Your task to perform on an android device: Clear the shopping cart on bestbuy.com. Image 0: 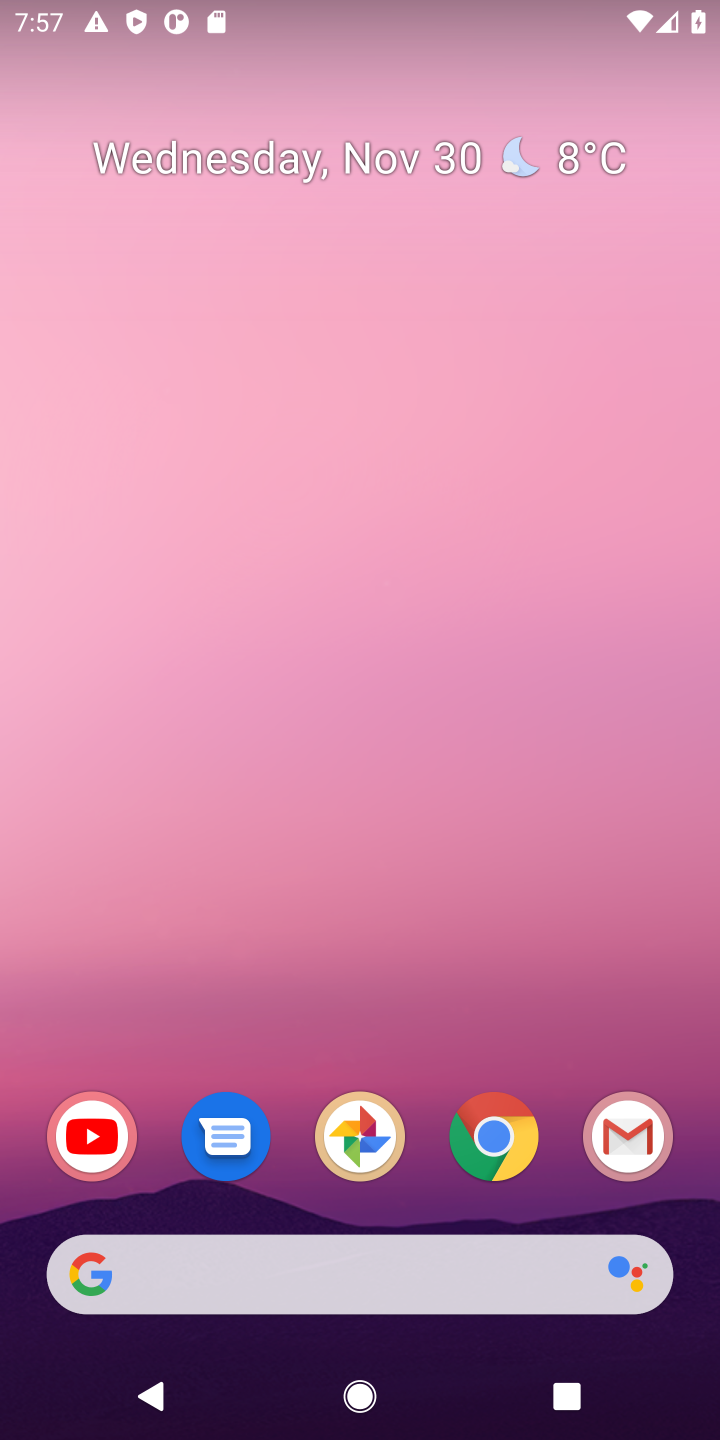
Step 0: click (505, 1115)
Your task to perform on an android device: Clear the shopping cart on bestbuy.com. Image 1: 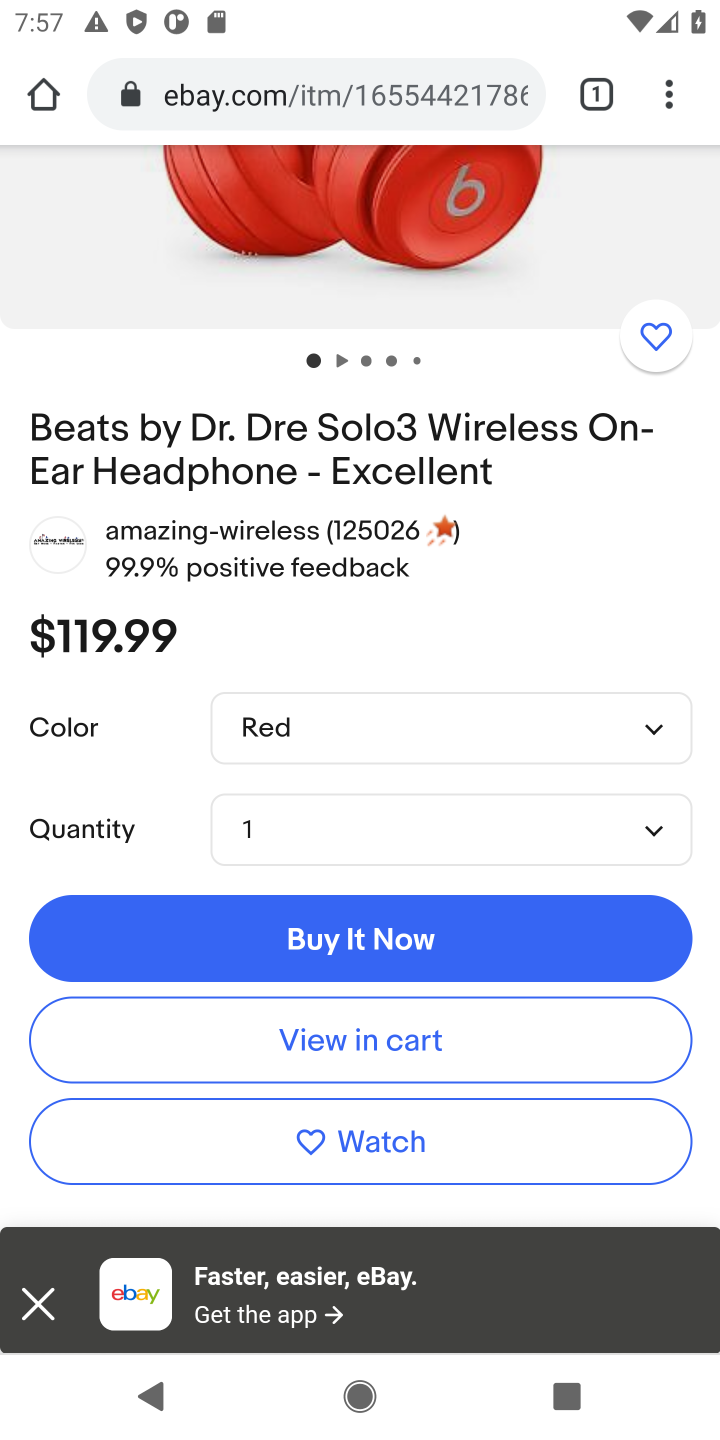
Step 1: click (317, 92)
Your task to perform on an android device: Clear the shopping cart on bestbuy.com. Image 2: 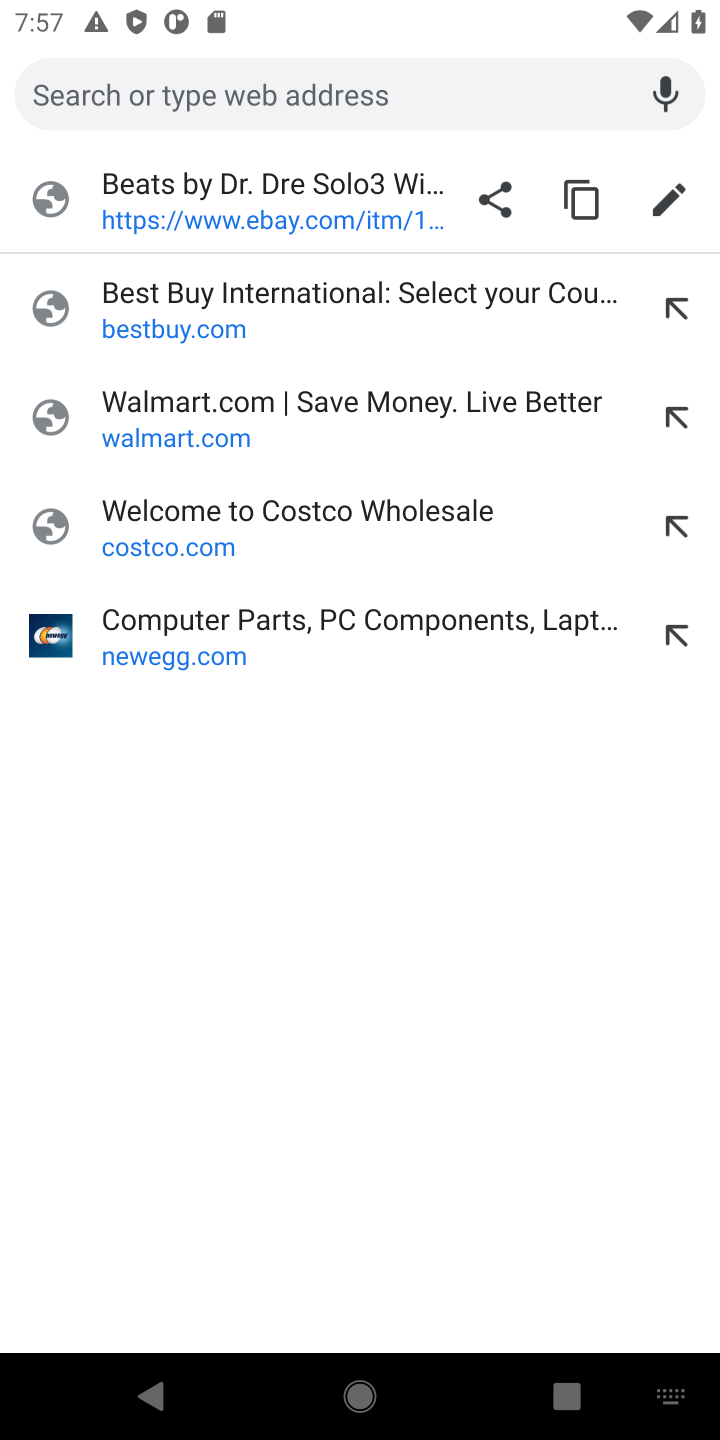
Step 2: click (150, 330)
Your task to perform on an android device: Clear the shopping cart on bestbuy.com. Image 3: 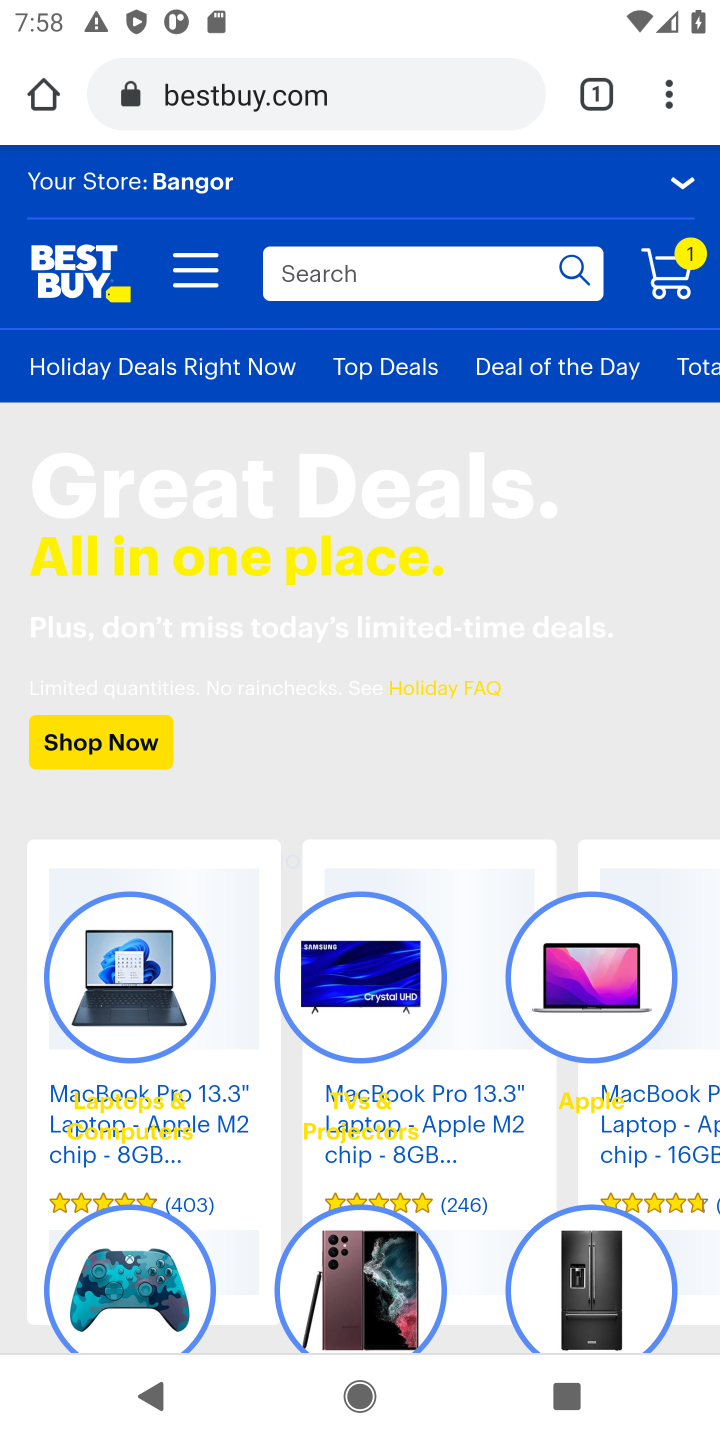
Step 3: click (663, 270)
Your task to perform on an android device: Clear the shopping cart on bestbuy.com. Image 4: 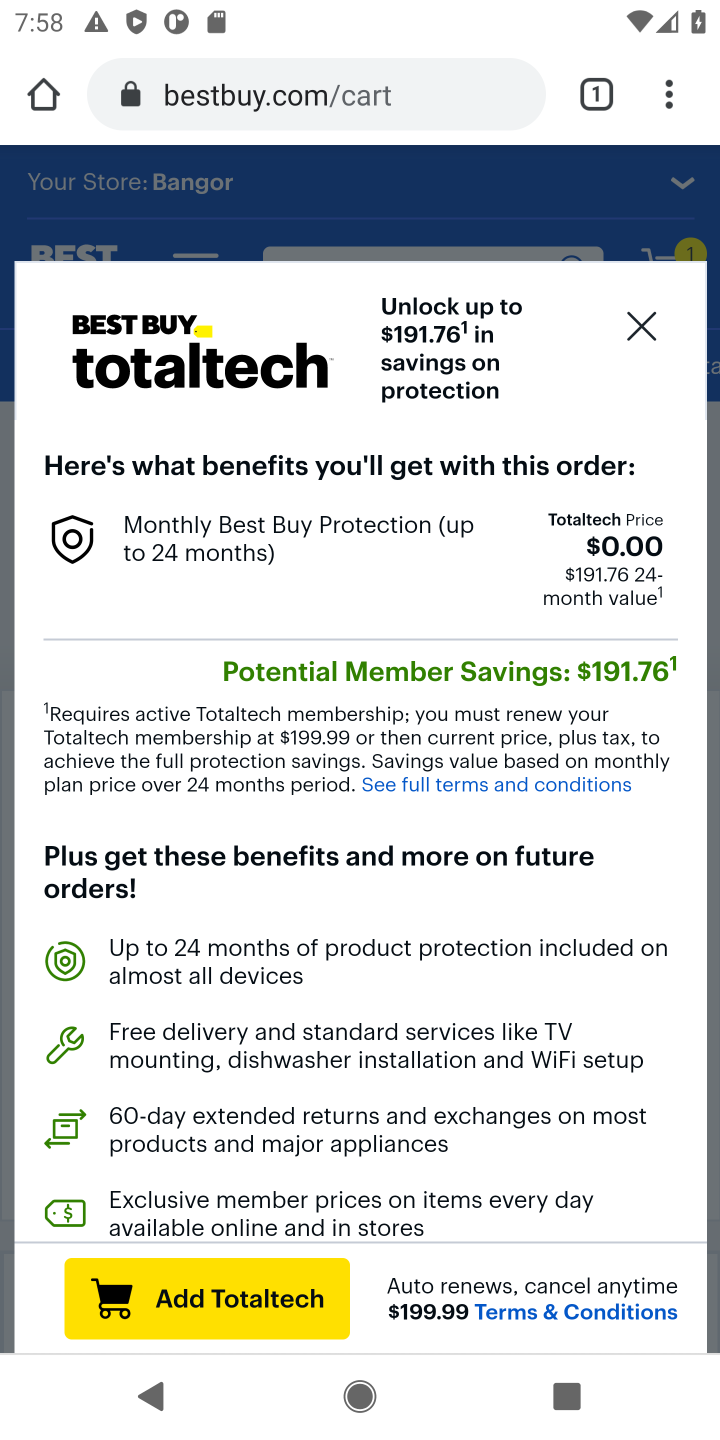
Step 4: click (643, 331)
Your task to perform on an android device: Clear the shopping cart on bestbuy.com. Image 5: 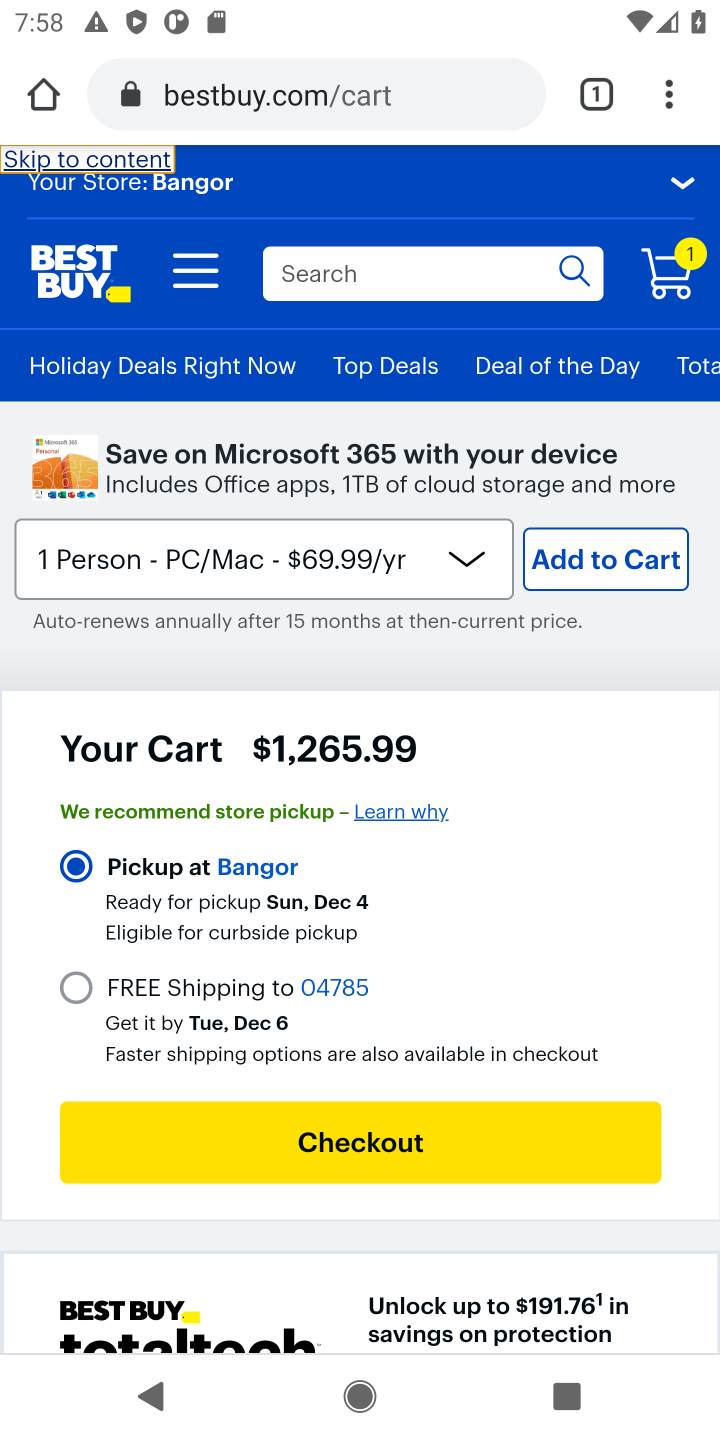
Step 5: drag from (555, 813) to (539, 301)
Your task to perform on an android device: Clear the shopping cart on bestbuy.com. Image 6: 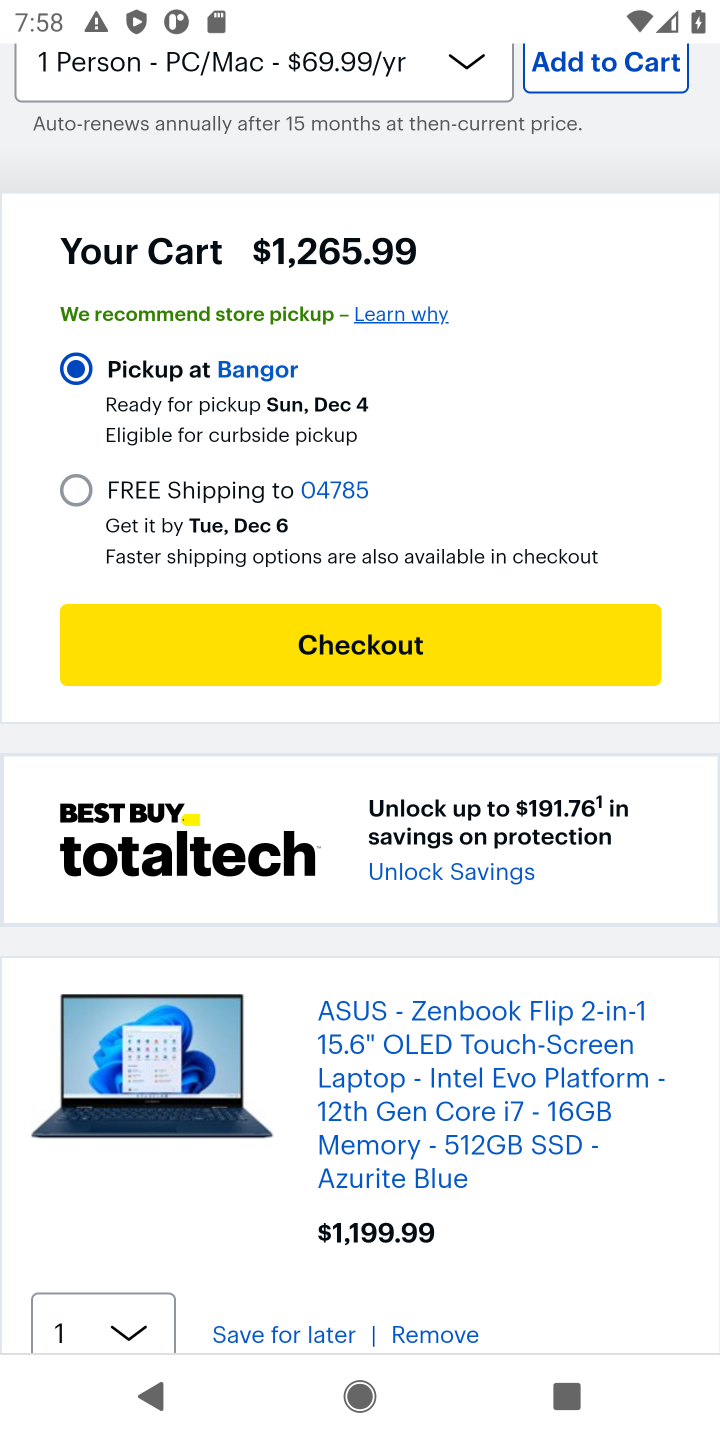
Step 6: drag from (499, 852) to (485, 330)
Your task to perform on an android device: Clear the shopping cart on bestbuy.com. Image 7: 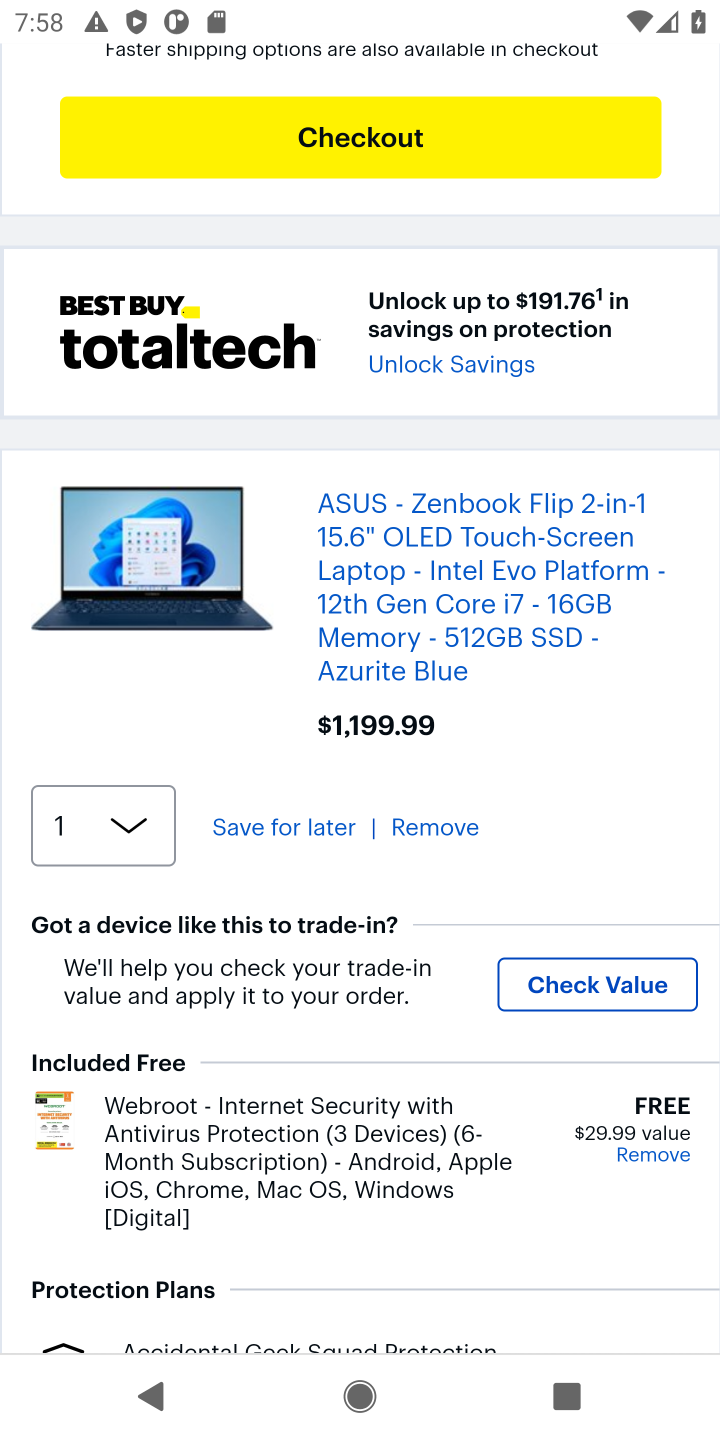
Step 7: click (428, 836)
Your task to perform on an android device: Clear the shopping cart on bestbuy.com. Image 8: 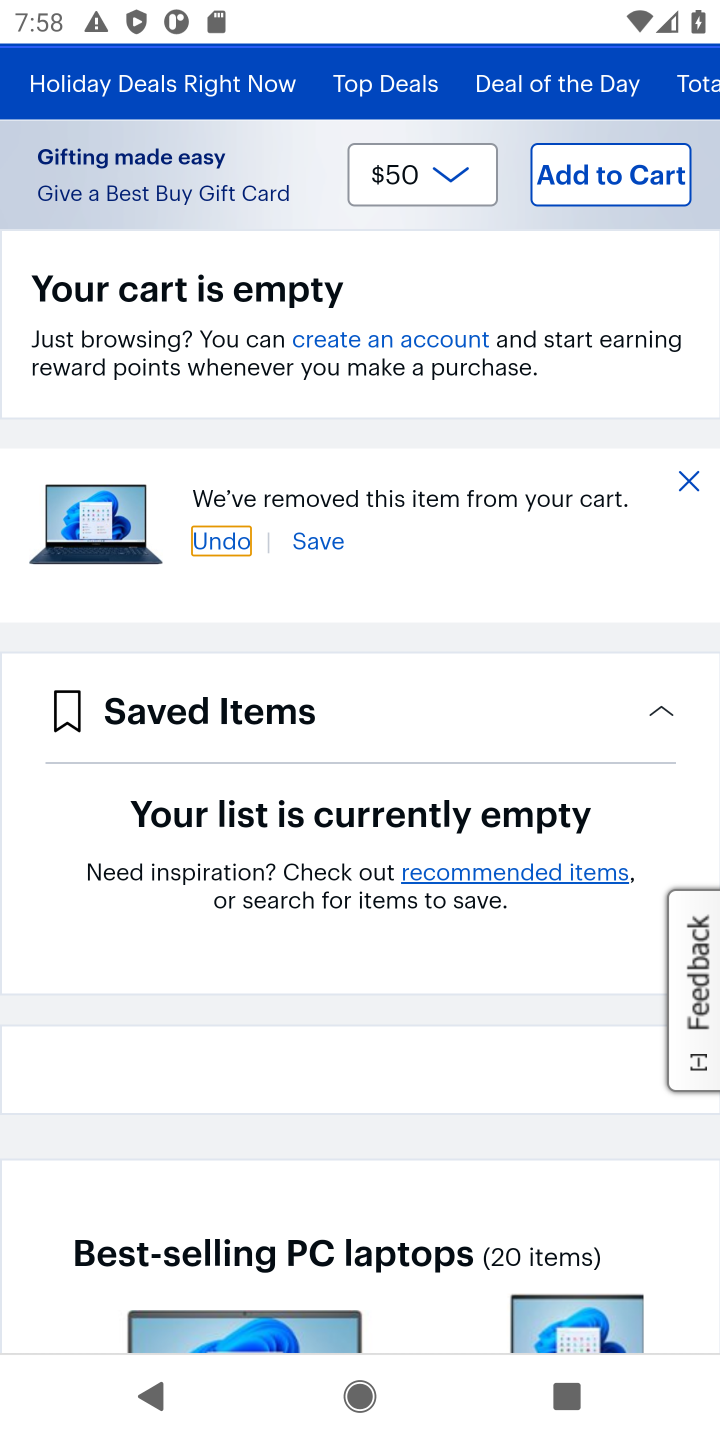
Step 8: task complete